Your task to perform on an android device: Open the phone app and click the voicemail tab. Image 0: 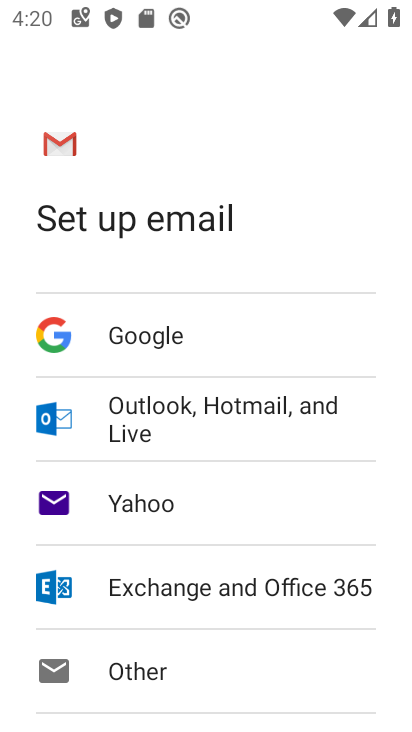
Step 0: press back button
Your task to perform on an android device: Open the phone app and click the voicemail tab. Image 1: 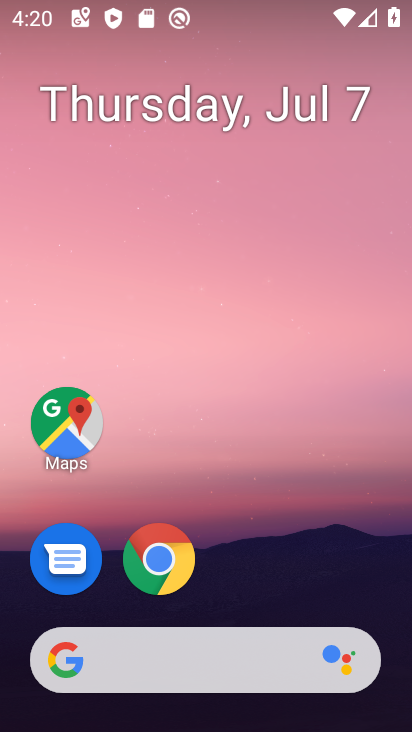
Step 1: drag from (183, 438) to (252, 45)
Your task to perform on an android device: Open the phone app and click the voicemail tab. Image 2: 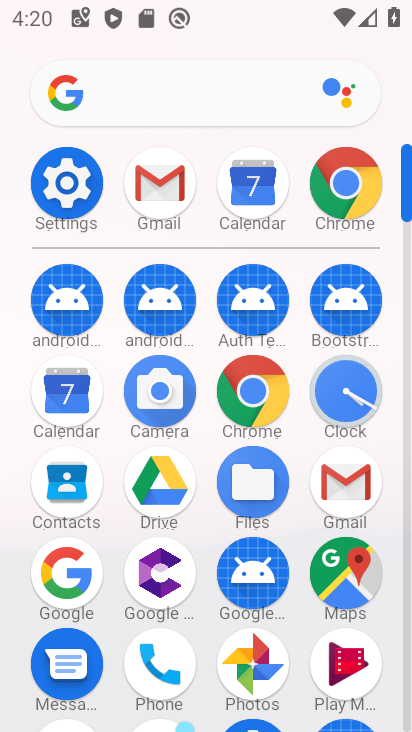
Step 2: click (158, 662)
Your task to perform on an android device: Open the phone app and click the voicemail tab. Image 3: 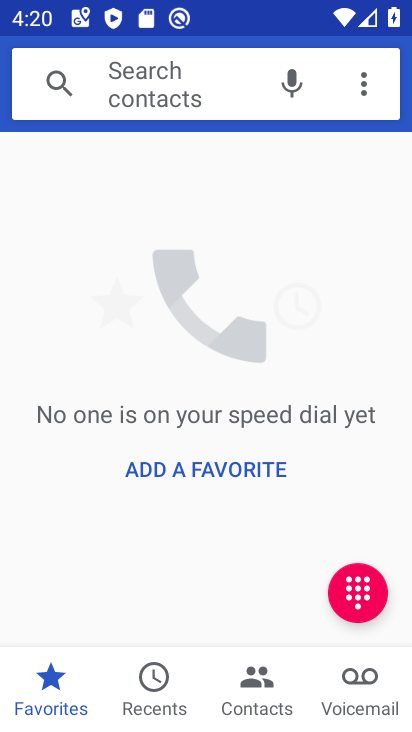
Step 3: click (373, 696)
Your task to perform on an android device: Open the phone app and click the voicemail tab. Image 4: 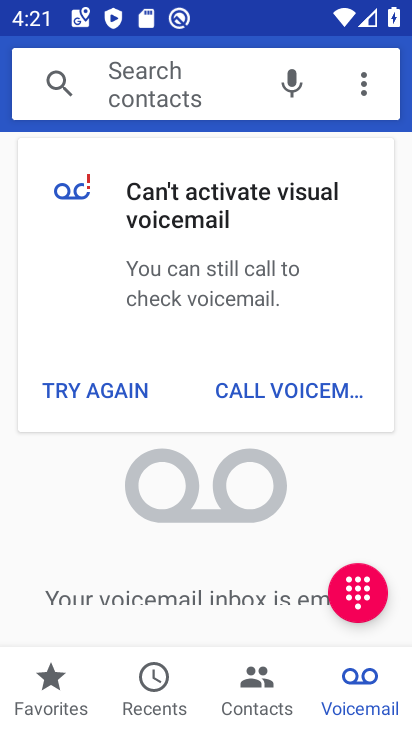
Step 4: task complete